Your task to perform on an android device: Is it going to rain tomorrow? Image 0: 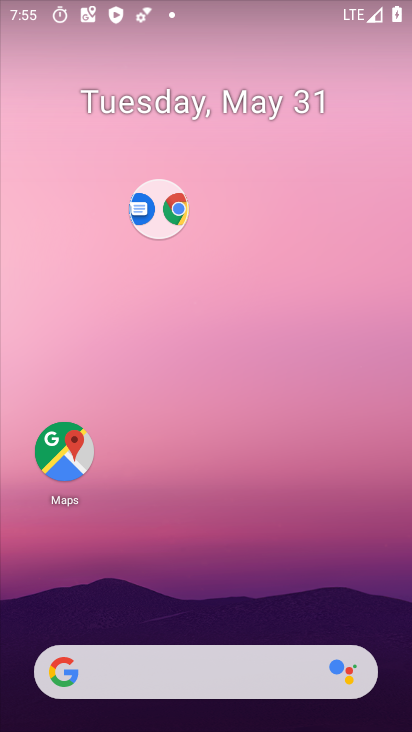
Step 0: drag from (198, 618) to (215, 49)
Your task to perform on an android device: Is it going to rain tomorrow? Image 1: 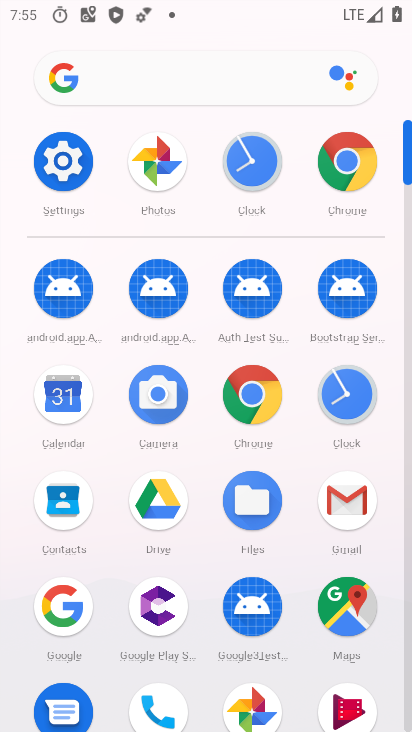
Step 1: click (60, 609)
Your task to perform on an android device: Is it going to rain tomorrow? Image 2: 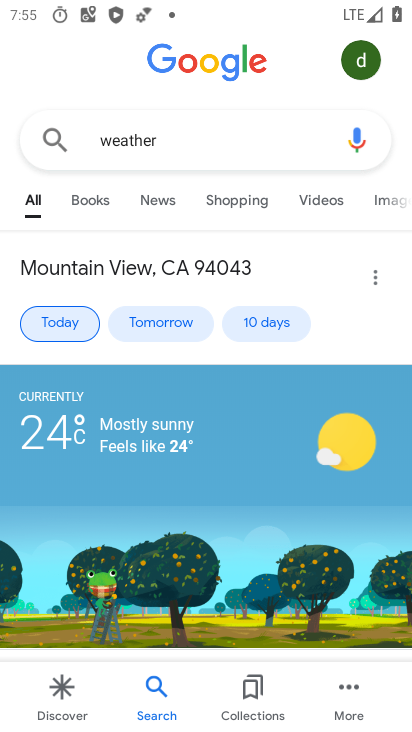
Step 2: click (148, 325)
Your task to perform on an android device: Is it going to rain tomorrow? Image 3: 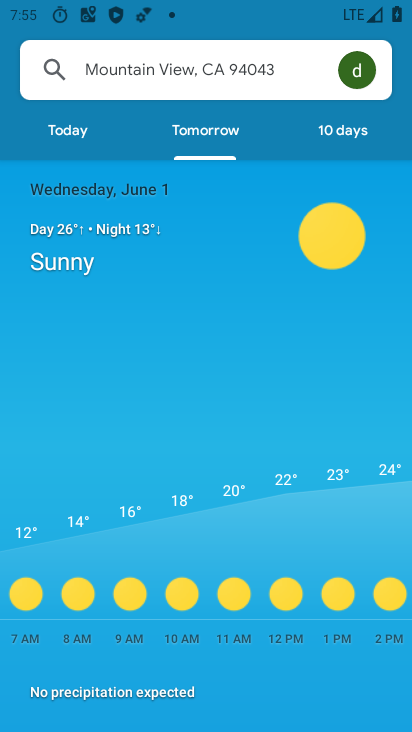
Step 3: task complete